Your task to perform on an android device: toggle javascript in the chrome app Image 0: 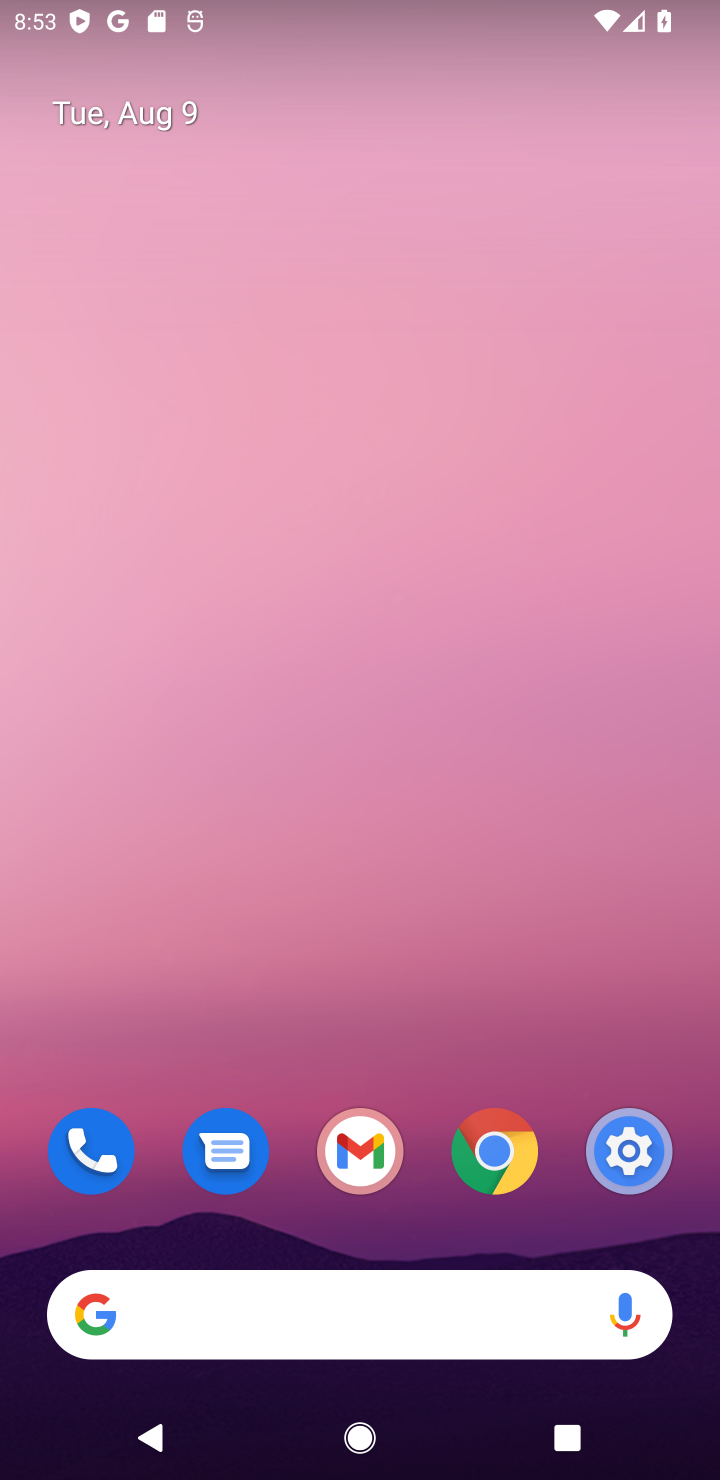
Step 0: click (511, 1152)
Your task to perform on an android device: toggle javascript in the chrome app Image 1: 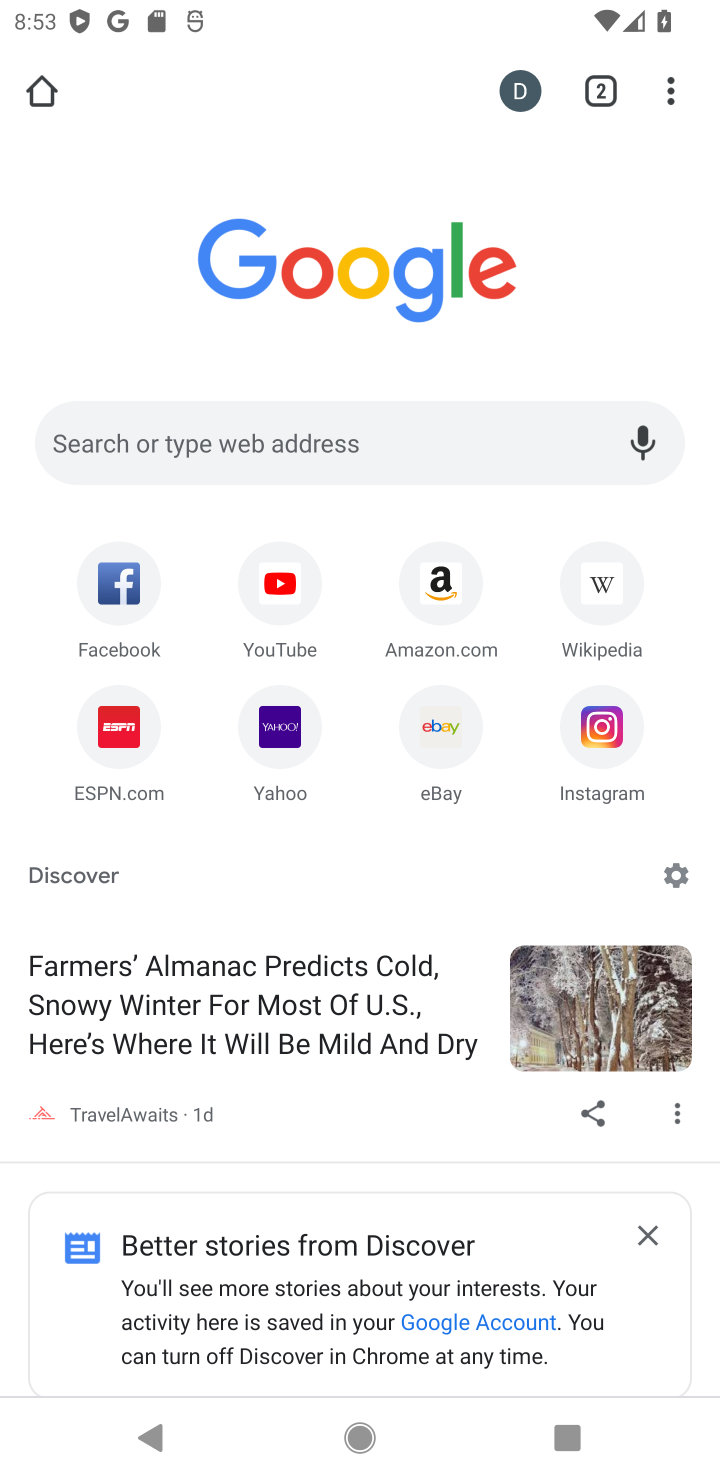
Step 1: click (667, 97)
Your task to perform on an android device: toggle javascript in the chrome app Image 2: 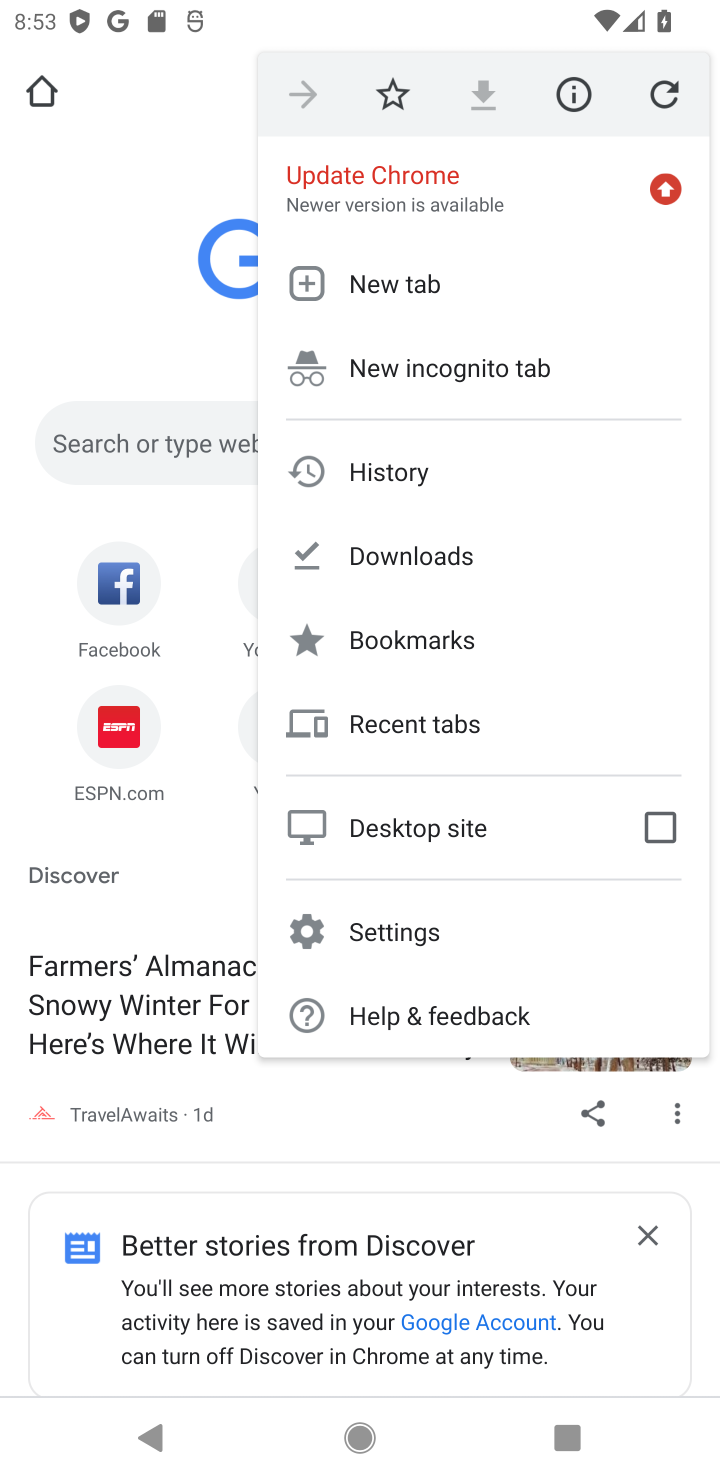
Step 2: click (403, 927)
Your task to perform on an android device: toggle javascript in the chrome app Image 3: 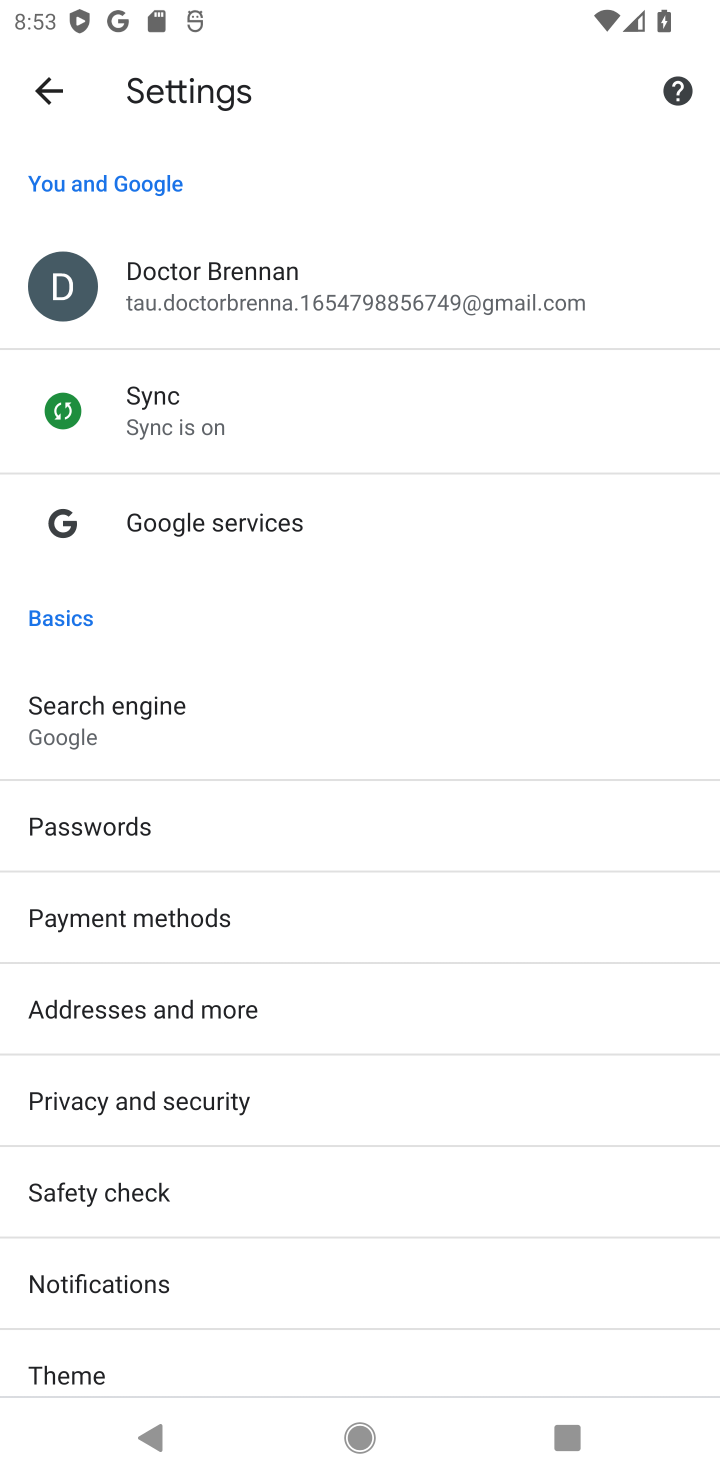
Step 3: drag from (361, 1194) to (354, 481)
Your task to perform on an android device: toggle javascript in the chrome app Image 4: 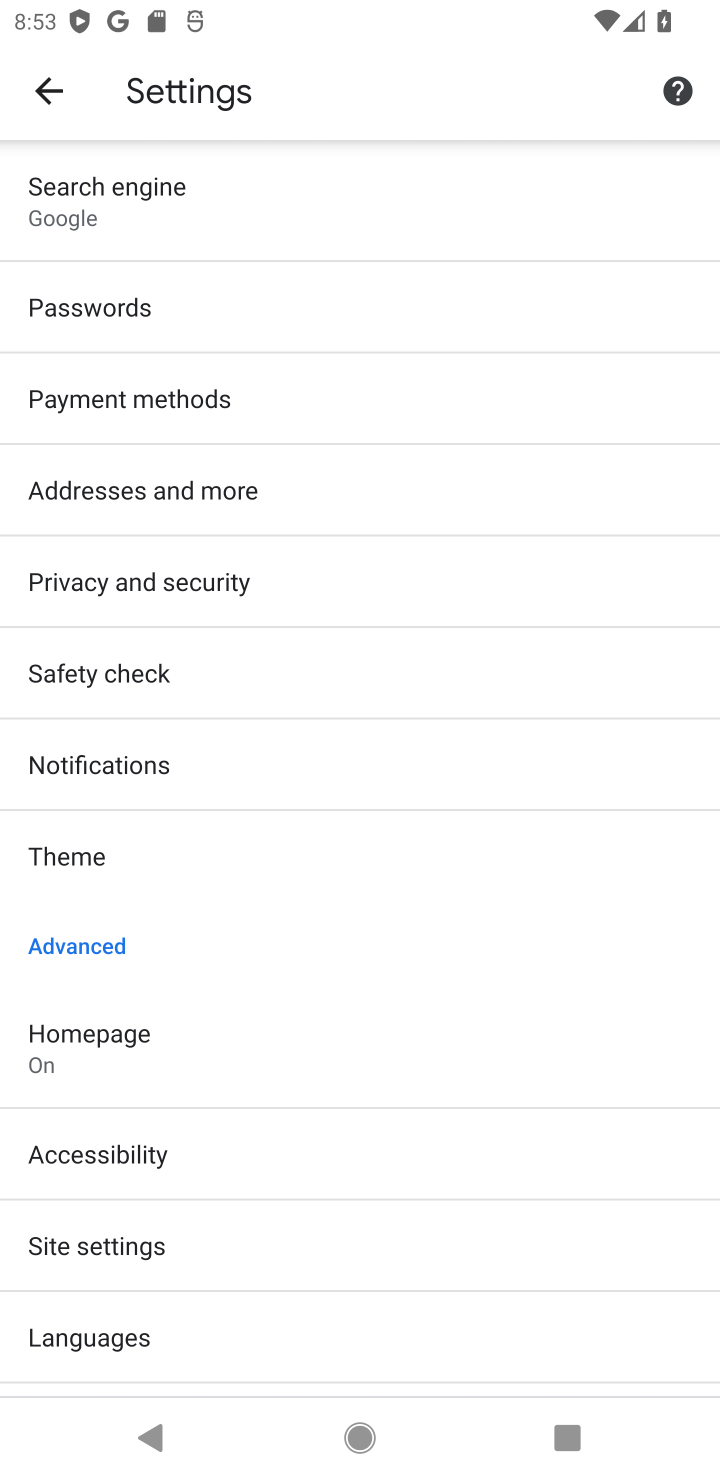
Step 4: click (153, 1239)
Your task to perform on an android device: toggle javascript in the chrome app Image 5: 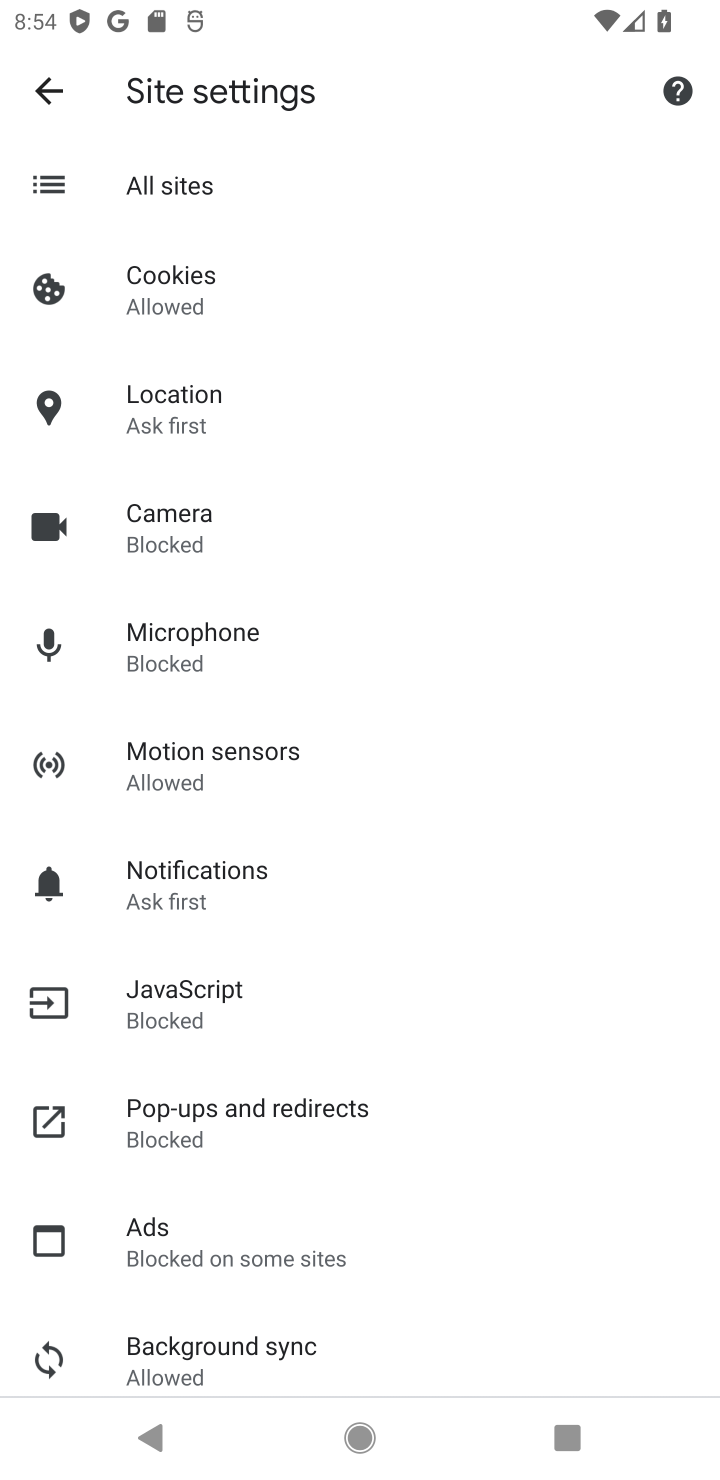
Step 5: click (200, 1022)
Your task to perform on an android device: toggle javascript in the chrome app Image 6: 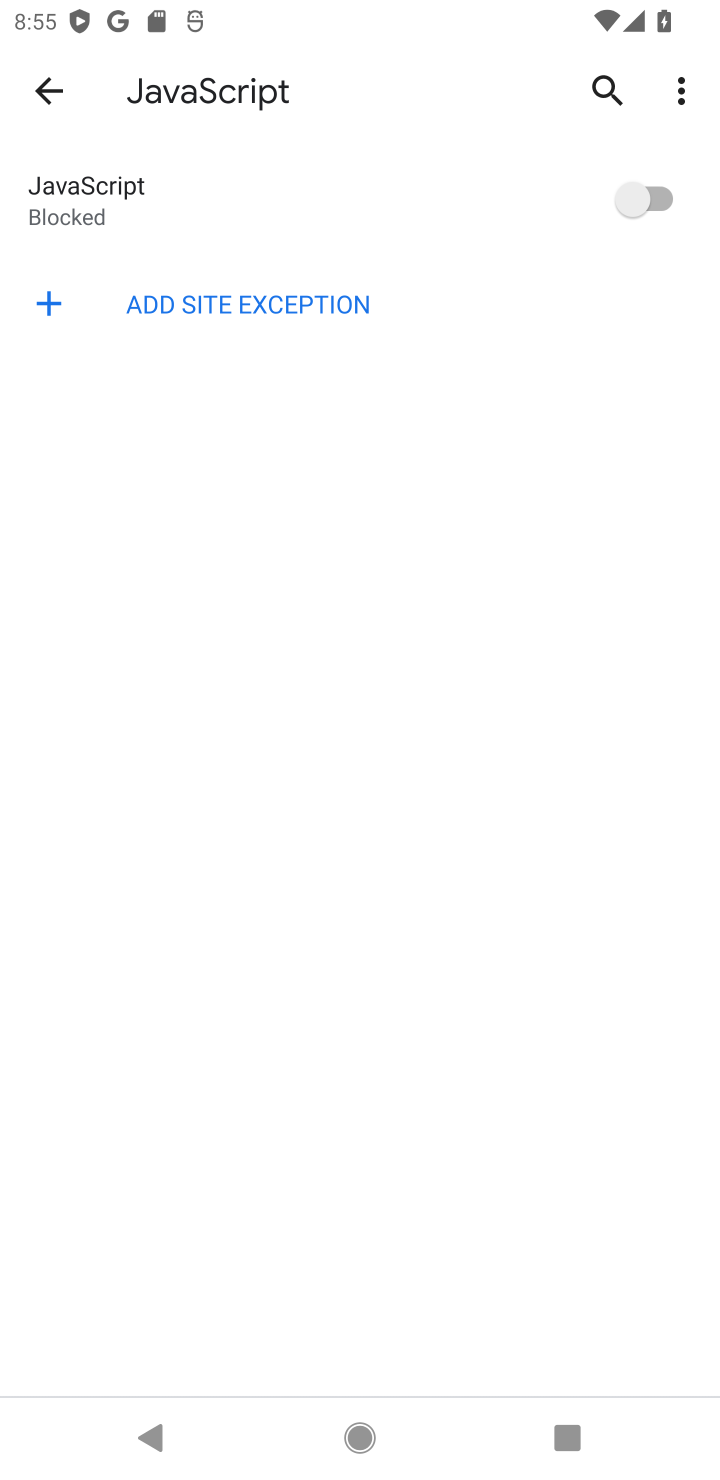
Step 6: click (634, 200)
Your task to perform on an android device: toggle javascript in the chrome app Image 7: 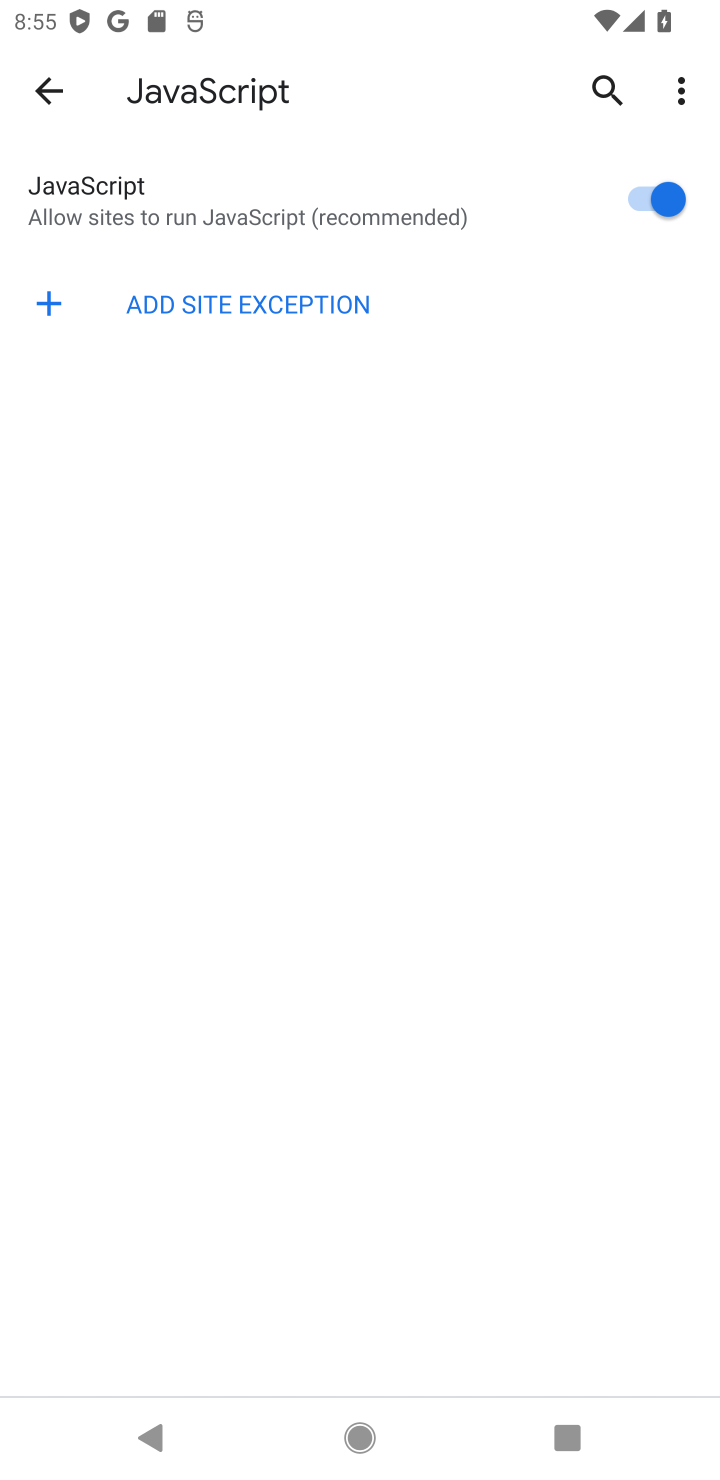
Step 7: task complete